Your task to perform on an android device: toggle improve location accuracy Image 0: 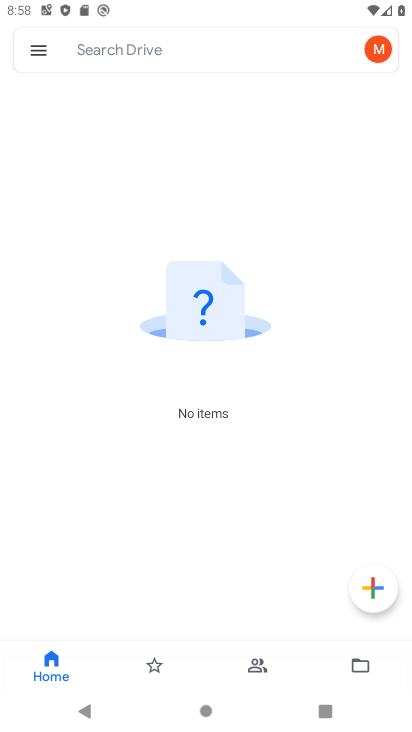
Step 0: press home button
Your task to perform on an android device: toggle improve location accuracy Image 1: 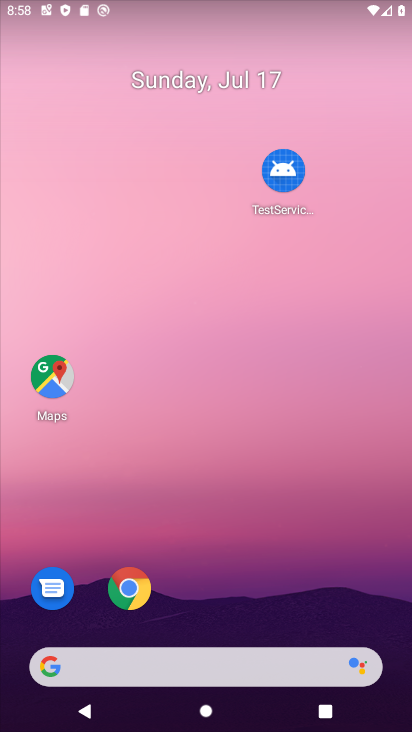
Step 1: drag from (255, 626) to (252, 199)
Your task to perform on an android device: toggle improve location accuracy Image 2: 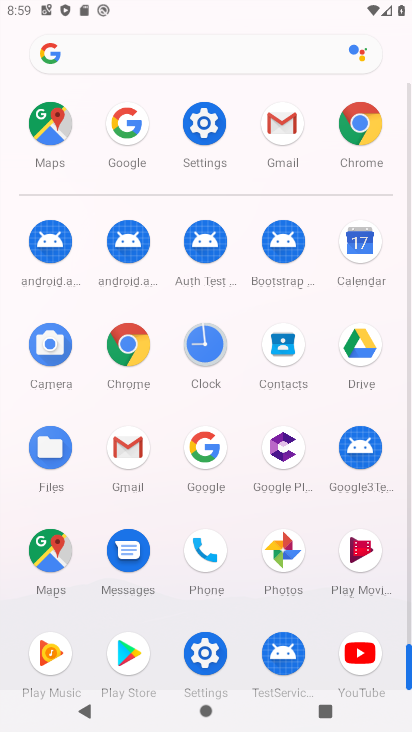
Step 2: click (215, 130)
Your task to perform on an android device: toggle improve location accuracy Image 3: 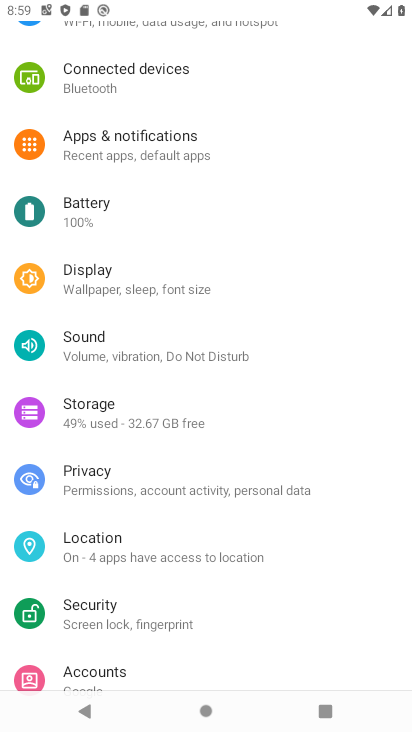
Step 3: drag from (222, 259) to (221, 560)
Your task to perform on an android device: toggle improve location accuracy Image 4: 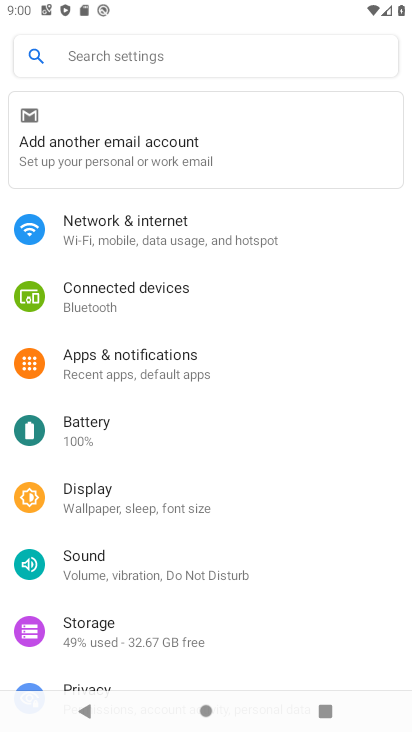
Step 4: drag from (173, 558) to (232, 234)
Your task to perform on an android device: toggle improve location accuracy Image 5: 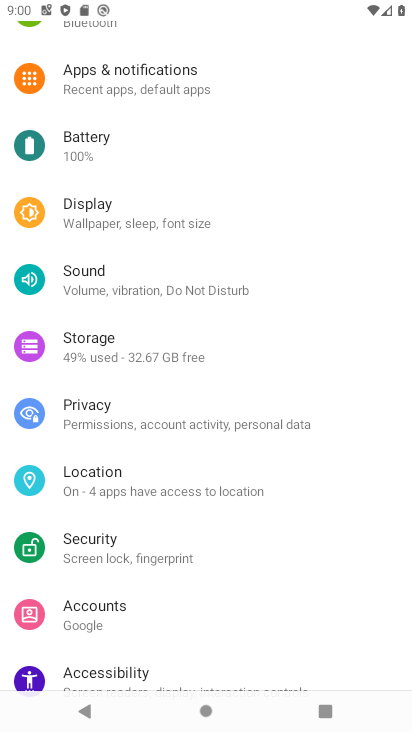
Step 5: click (138, 497)
Your task to perform on an android device: toggle improve location accuracy Image 6: 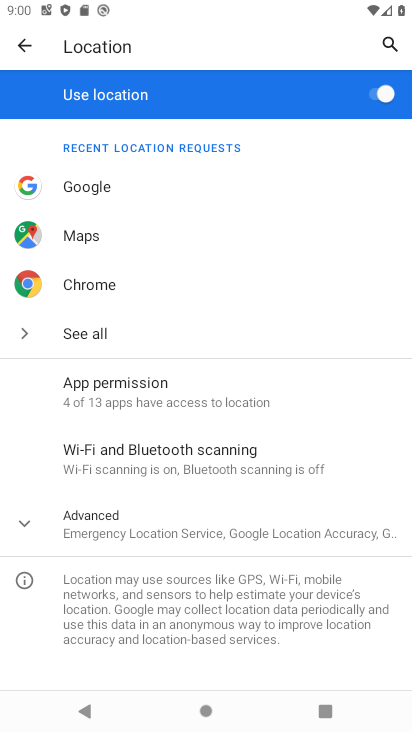
Step 6: click (187, 534)
Your task to perform on an android device: toggle improve location accuracy Image 7: 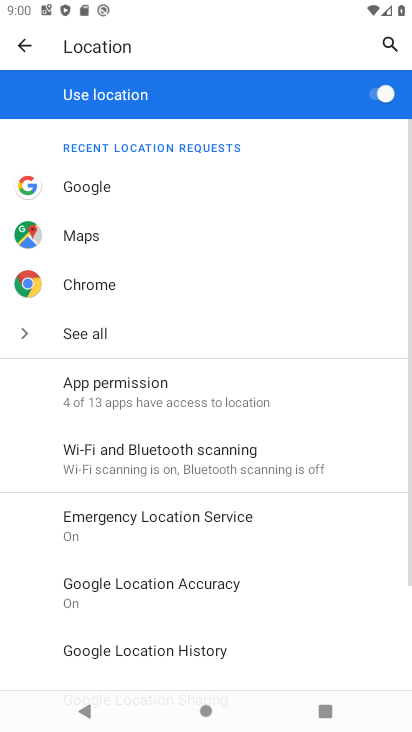
Step 7: click (184, 589)
Your task to perform on an android device: toggle improve location accuracy Image 8: 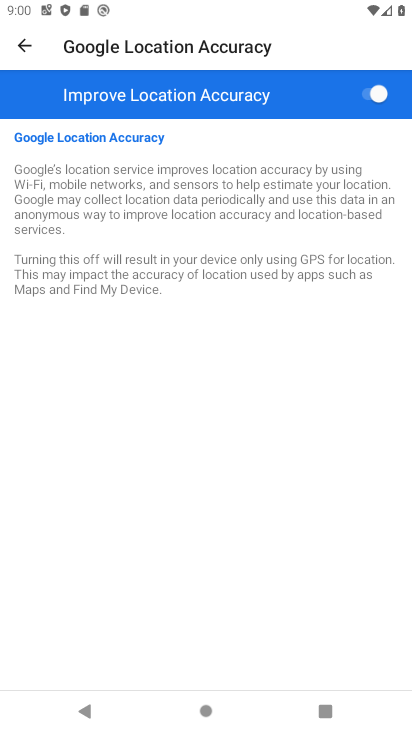
Step 8: click (367, 101)
Your task to perform on an android device: toggle improve location accuracy Image 9: 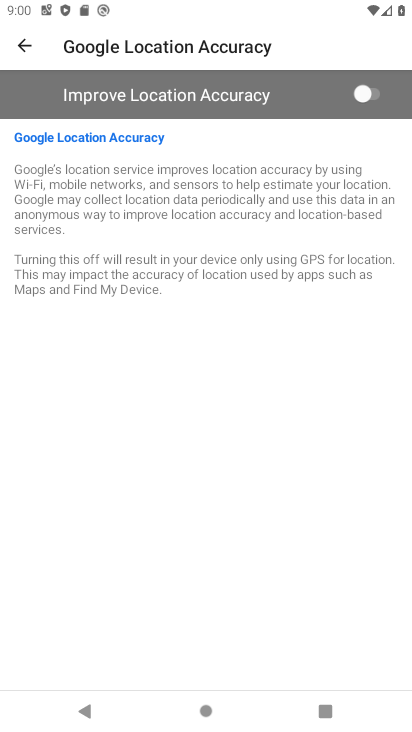
Step 9: task complete